Your task to perform on an android device: Go to wifi settings Image 0: 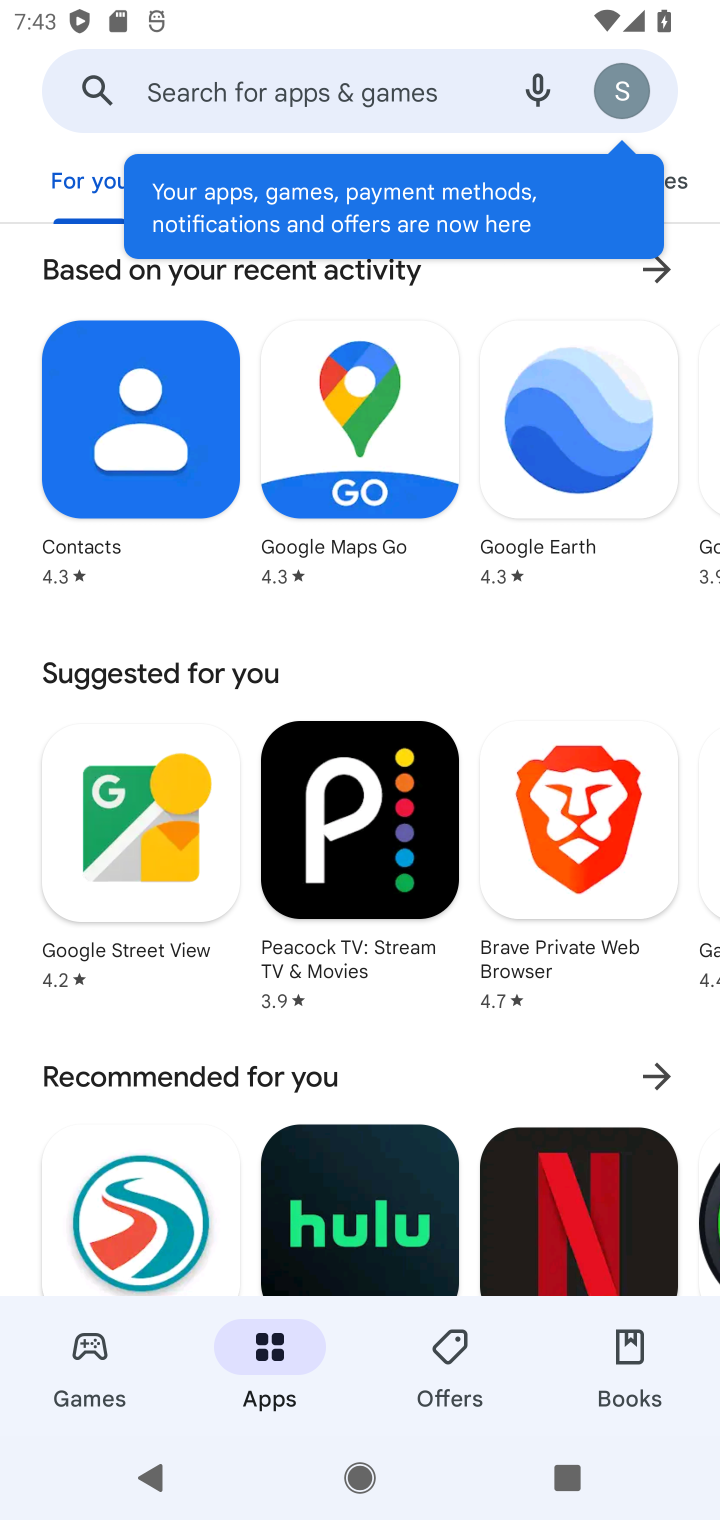
Step 0: press home button
Your task to perform on an android device: Go to wifi settings Image 1: 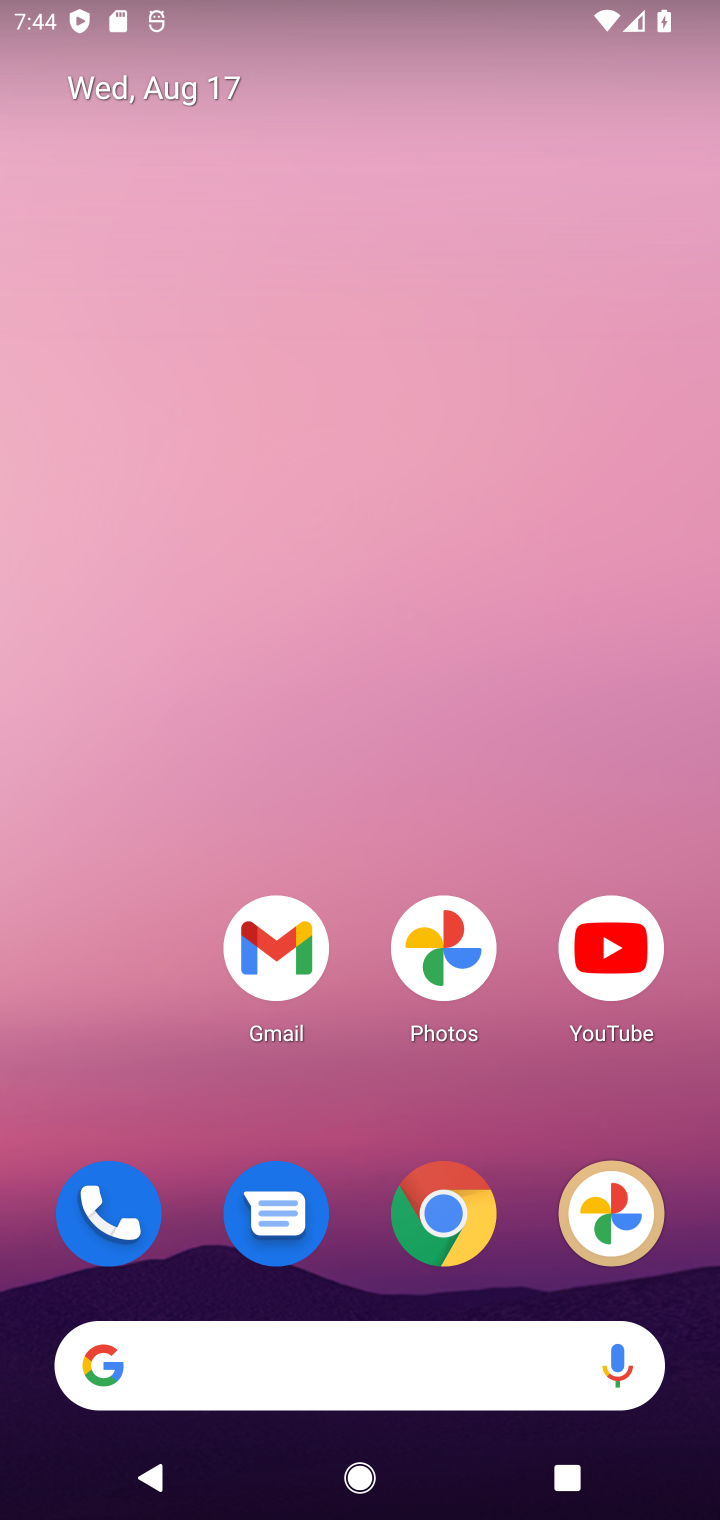
Step 1: drag from (371, 1279) to (328, 381)
Your task to perform on an android device: Go to wifi settings Image 2: 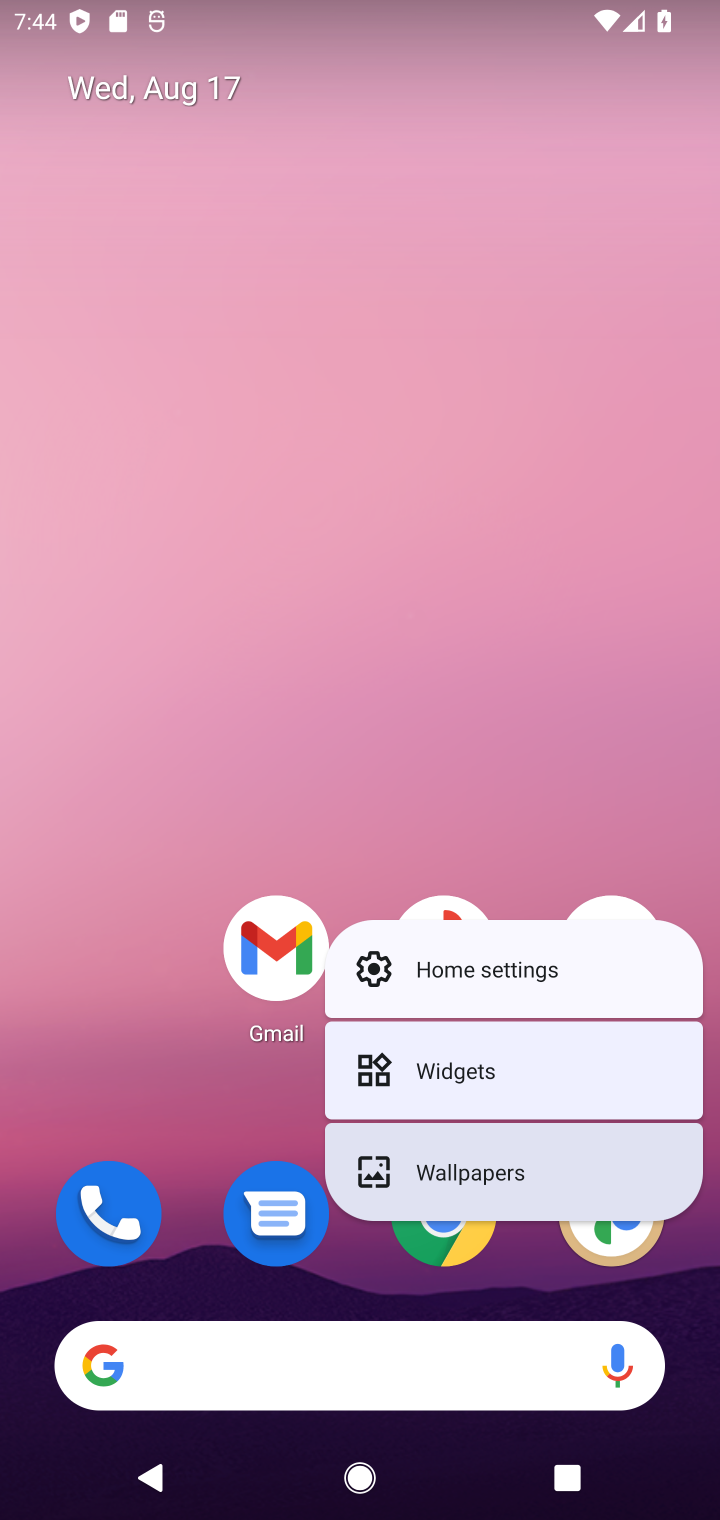
Step 2: click (328, 381)
Your task to perform on an android device: Go to wifi settings Image 3: 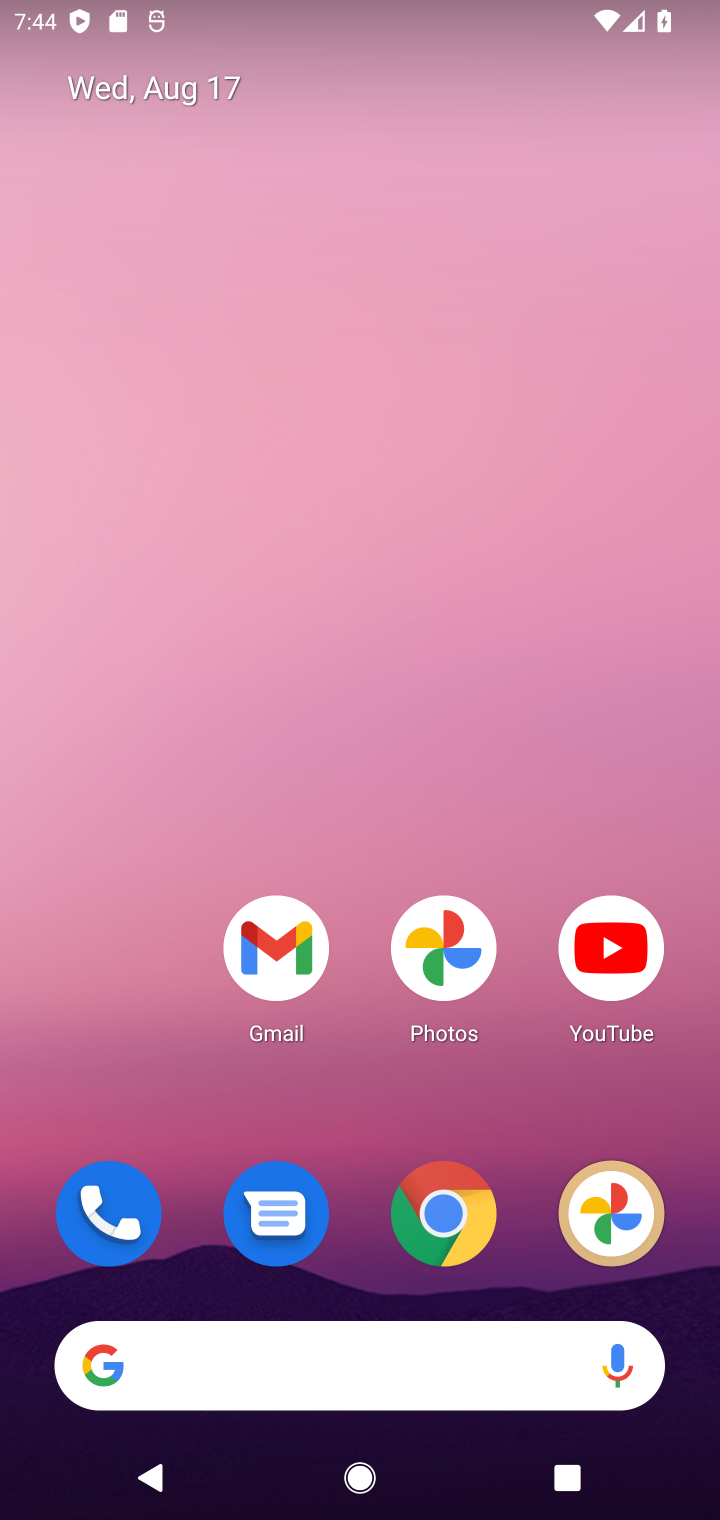
Step 3: drag from (360, 1280) to (360, 434)
Your task to perform on an android device: Go to wifi settings Image 4: 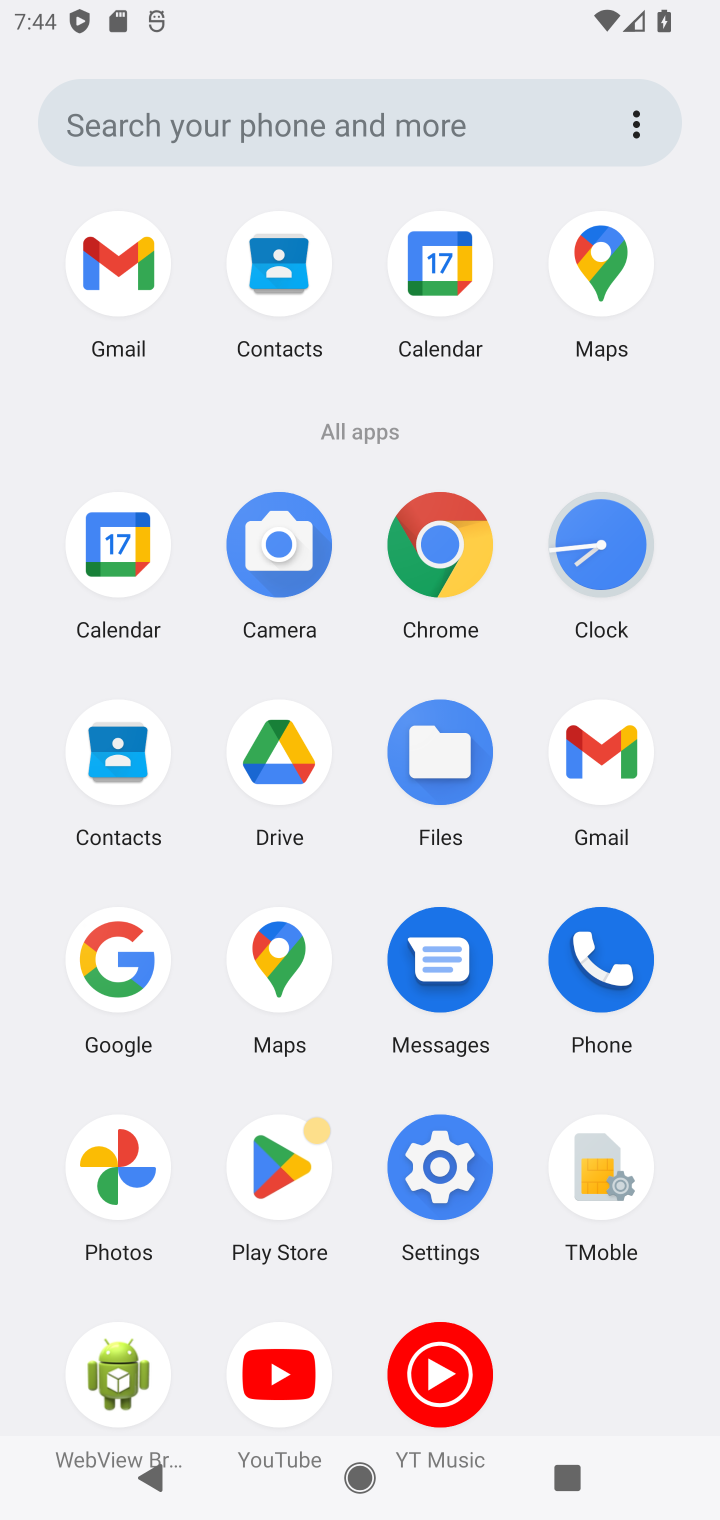
Step 4: click (445, 1162)
Your task to perform on an android device: Go to wifi settings Image 5: 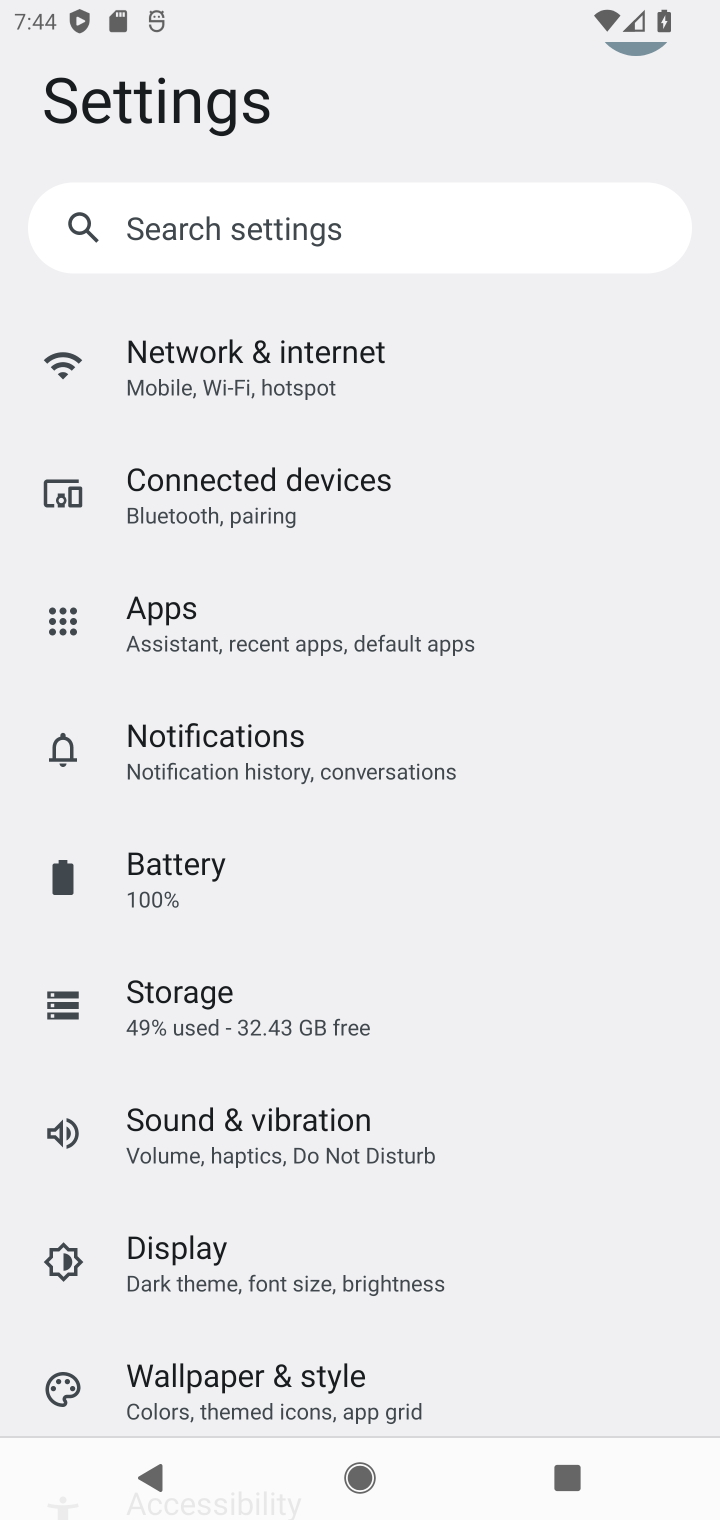
Step 5: click (310, 386)
Your task to perform on an android device: Go to wifi settings Image 6: 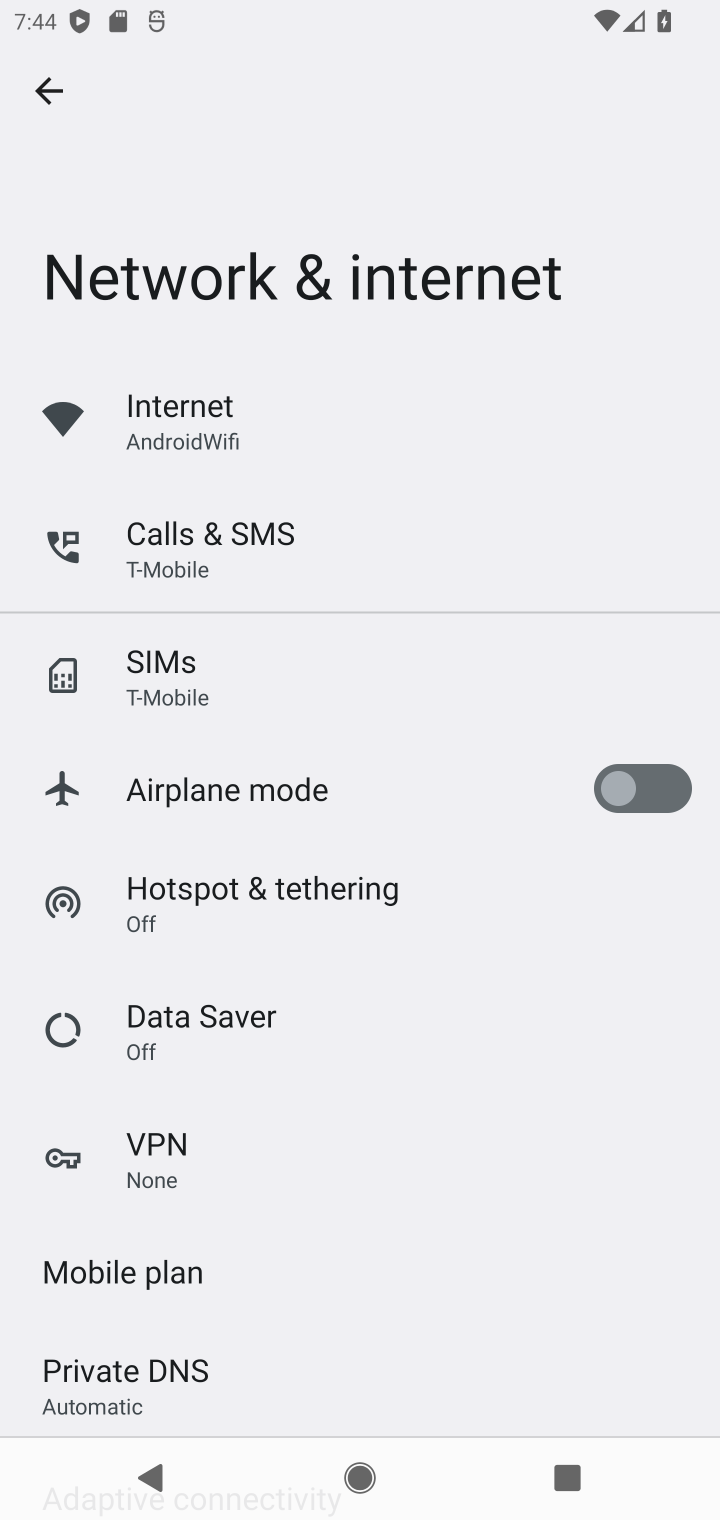
Step 6: click (415, 454)
Your task to perform on an android device: Go to wifi settings Image 7: 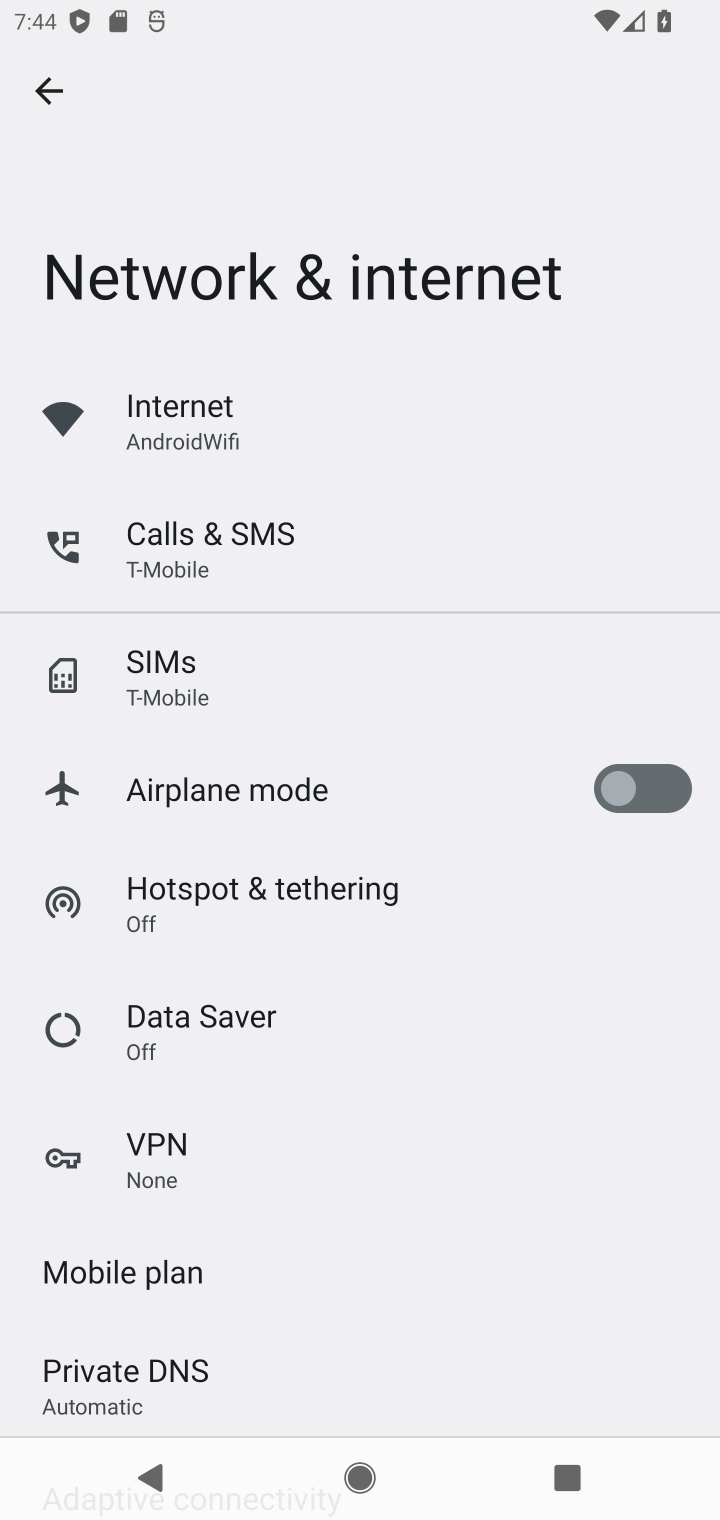
Step 7: task complete